Your task to perform on an android device: Check the news Image 0: 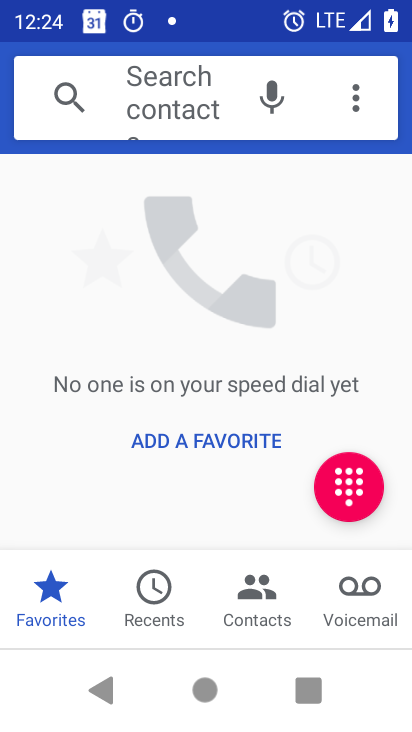
Step 0: press home button
Your task to perform on an android device: Check the news Image 1: 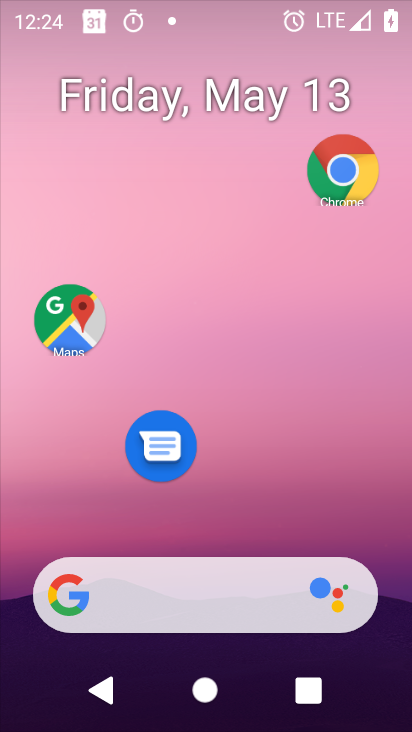
Step 1: drag from (276, 617) to (300, 3)
Your task to perform on an android device: Check the news Image 2: 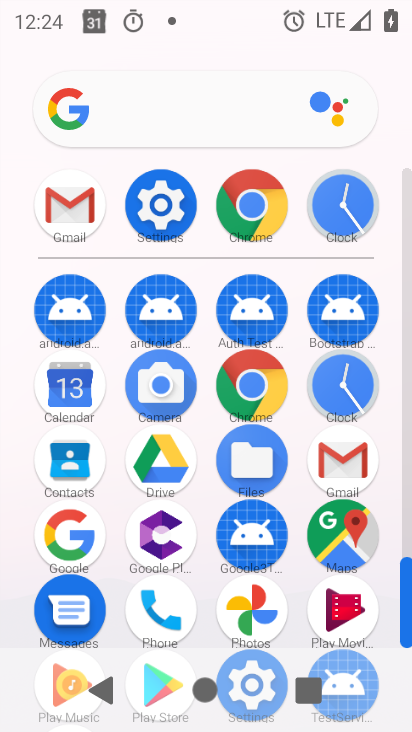
Step 2: click (250, 396)
Your task to perform on an android device: Check the news Image 3: 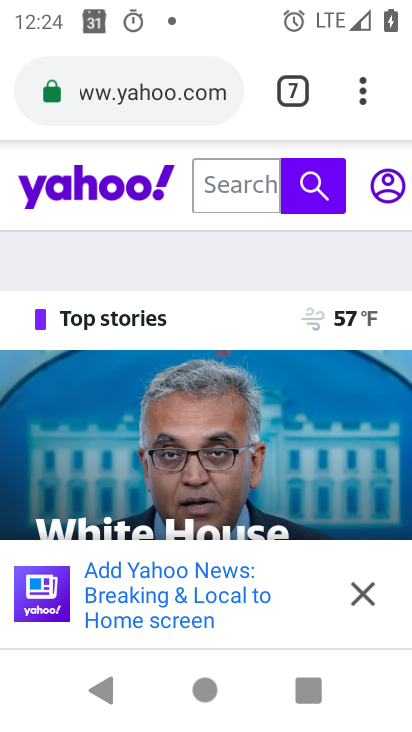
Step 3: click (193, 81)
Your task to perform on an android device: Check the news Image 4: 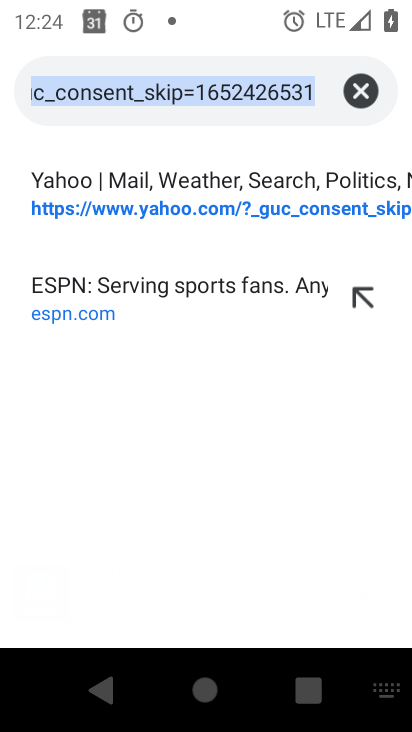
Step 4: click (348, 91)
Your task to perform on an android device: Check the news Image 5: 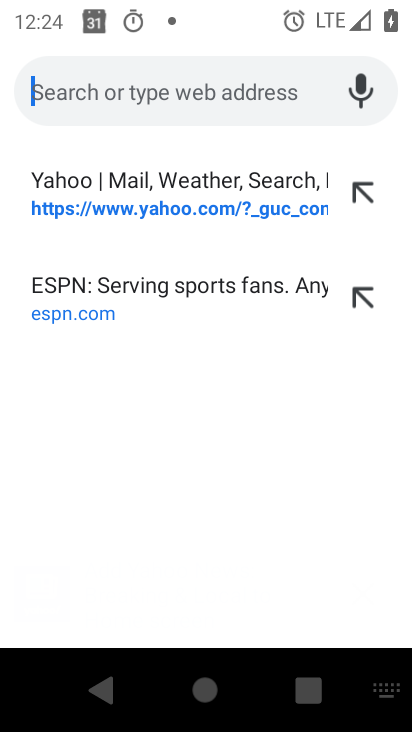
Step 5: type "check the news"
Your task to perform on an android device: Check the news Image 6: 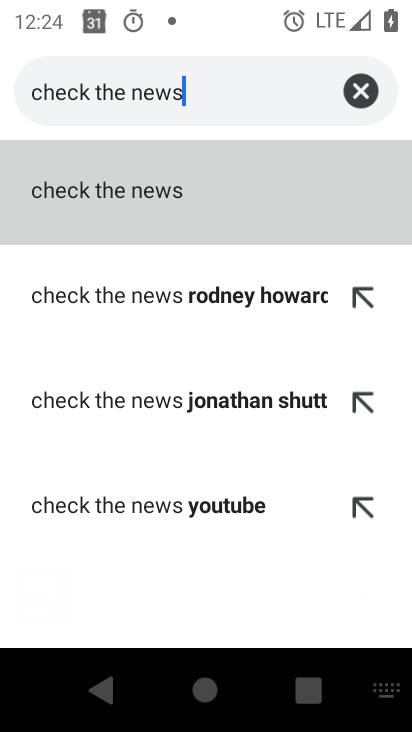
Step 6: click (189, 214)
Your task to perform on an android device: Check the news Image 7: 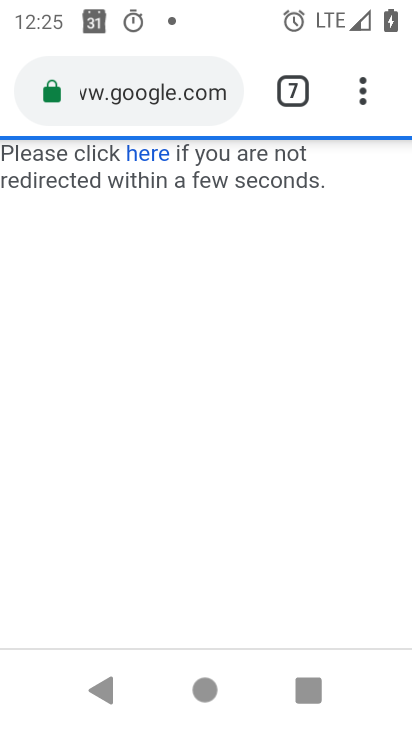
Step 7: task complete